Your task to perform on an android device: Empty the shopping cart on ebay.com. Search for "macbook pro 15 inch" on ebay.com, select the first entry, add it to the cart, then select checkout. Image 0: 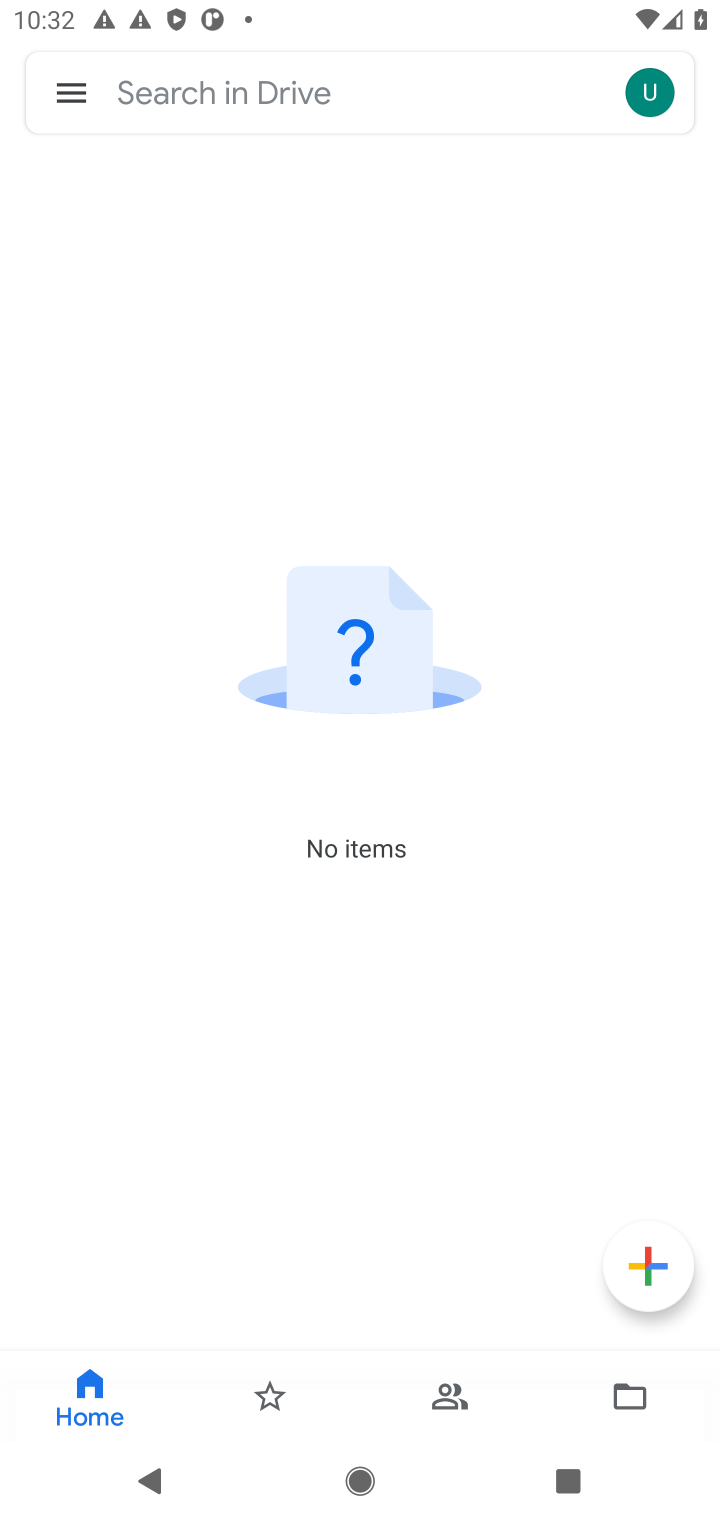
Step 0: press home button
Your task to perform on an android device: Empty the shopping cart on ebay.com. Search for "macbook pro 15 inch" on ebay.com, select the first entry, add it to the cart, then select checkout. Image 1: 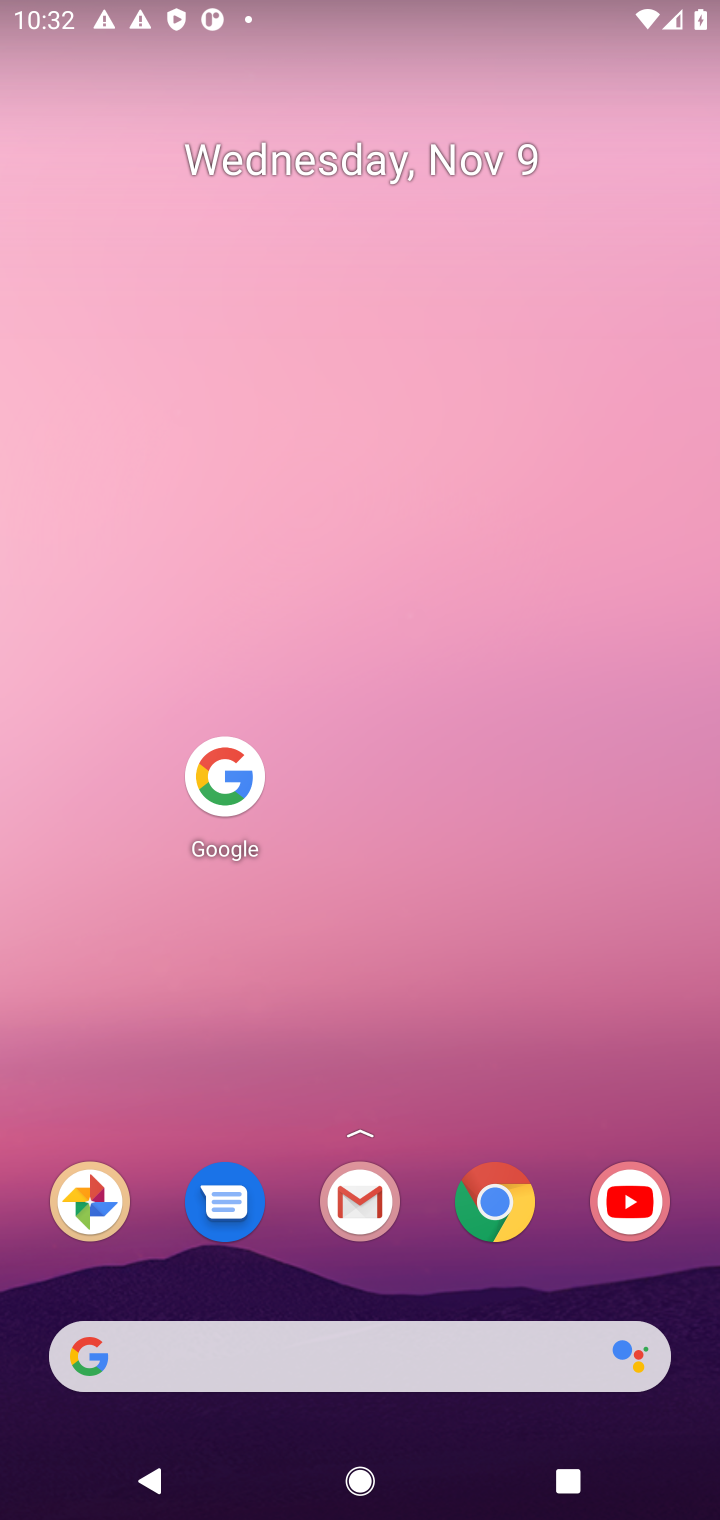
Step 1: click (236, 772)
Your task to perform on an android device: Empty the shopping cart on ebay.com. Search for "macbook pro 15 inch" on ebay.com, select the first entry, add it to the cart, then select checkout. Image 2: 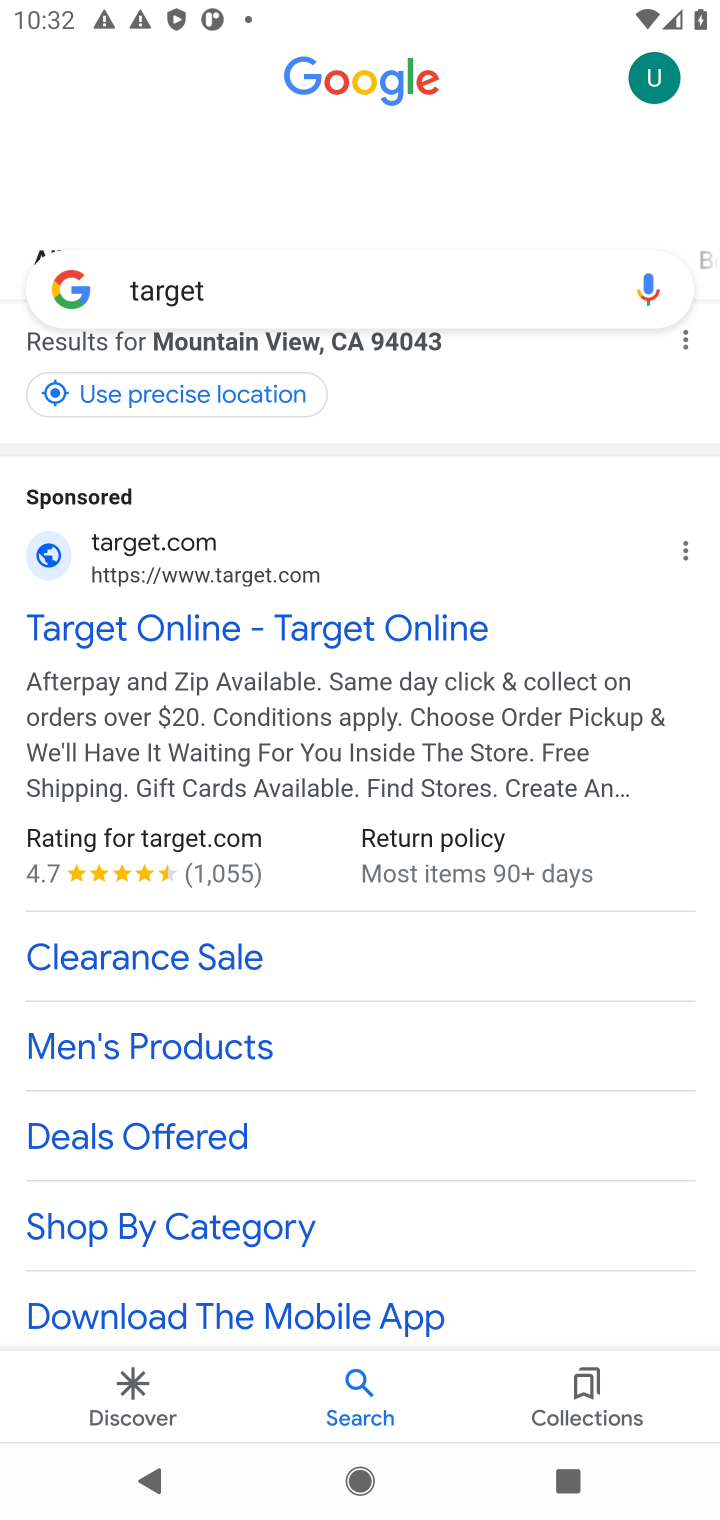
Step 2: click (272, 275)
Your task to perform on an android device: Empty the shopping cart on ebay.com. Search for "macbook pro 15 inch" on ebay.com, select the first entry, add it to the cart, then select checkout. Image 3: 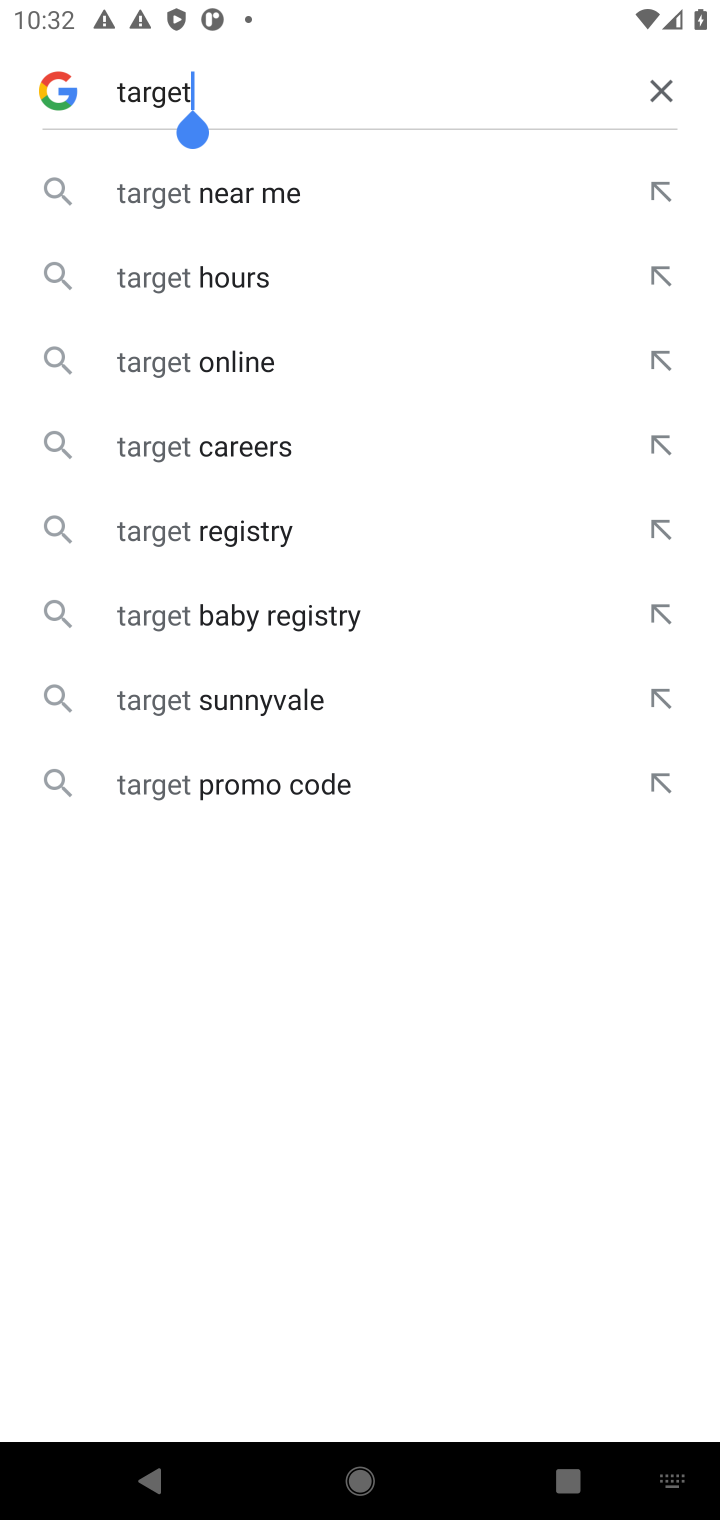
Step 3: click (659, 77)
Your task to perform on an android device: Empty the shopping cart on ebay.com. Search for "macbook pro 15 inch" on ebay.com, select the first entry, add it to the cart, then select checkout. Image 4: 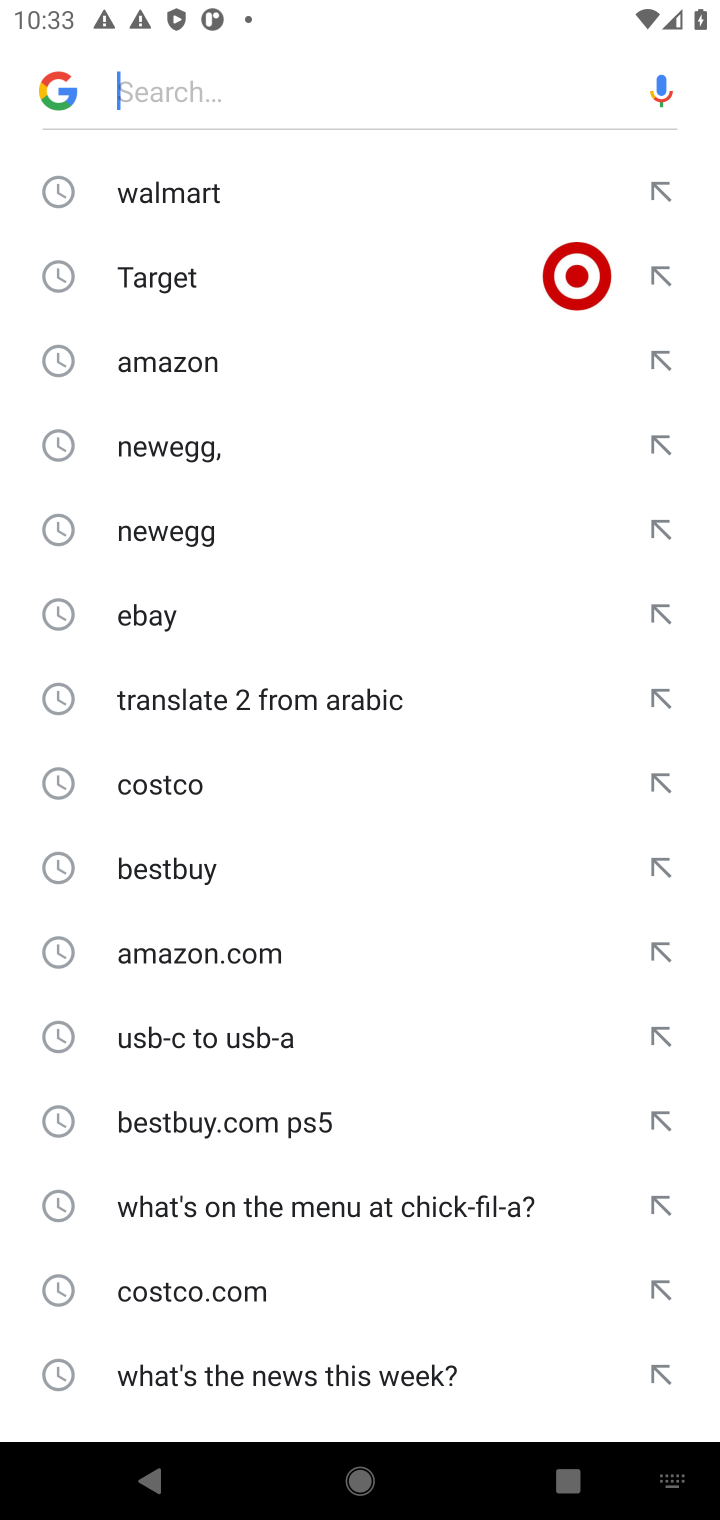
Step 4: click (149, 614)
Your task to perform on an android device: Empty the shopping cart on ebay.com. Search for "macbook pro 15 inch" on ebay.com, select the first entry, add it to the cart, then select checkout. Image 5: 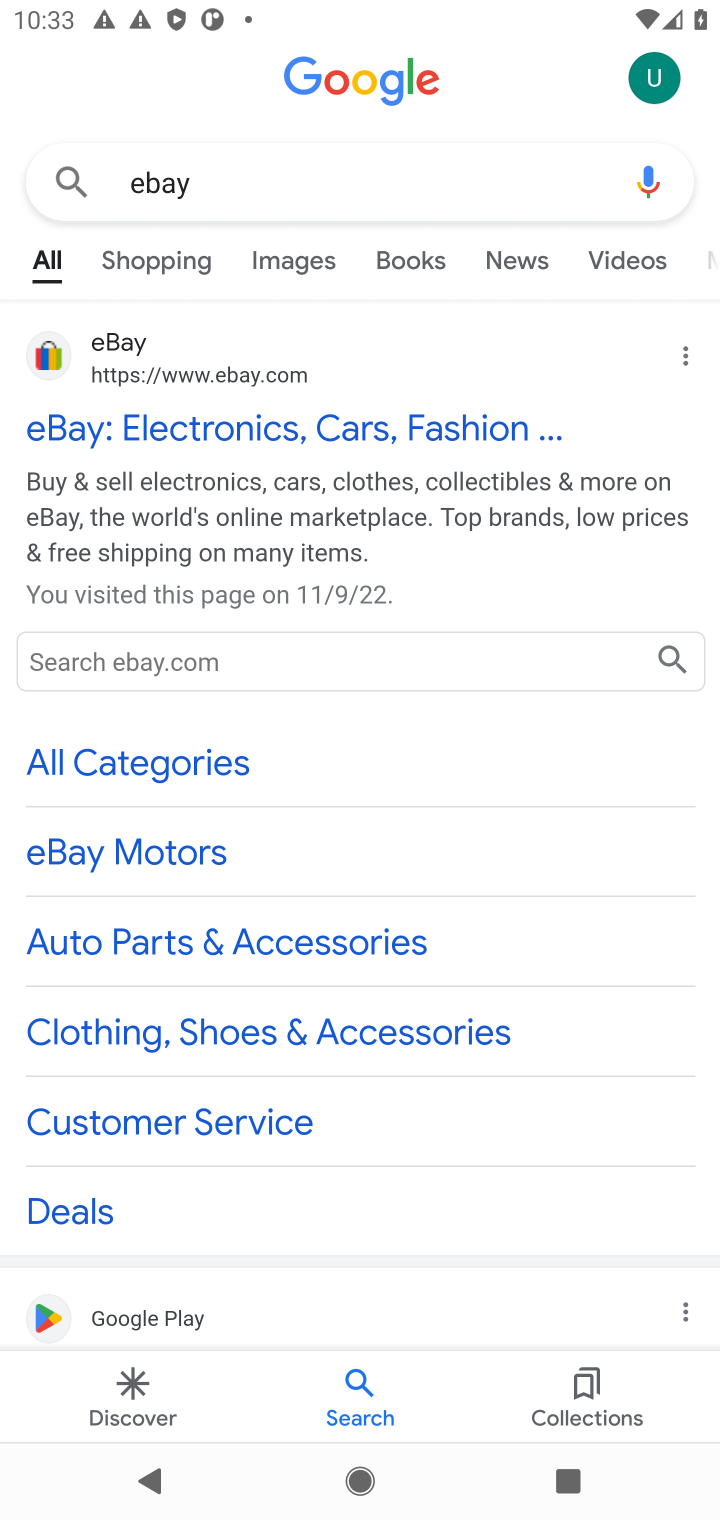
Step 5: click (258, 422)
Your task to perform on an android device: Empty the shopping cart on ebay.com. Search for "macbook pro 15 inch" on ebay.com, select the first entry, add it to the cart, then select checkout. Image 6: 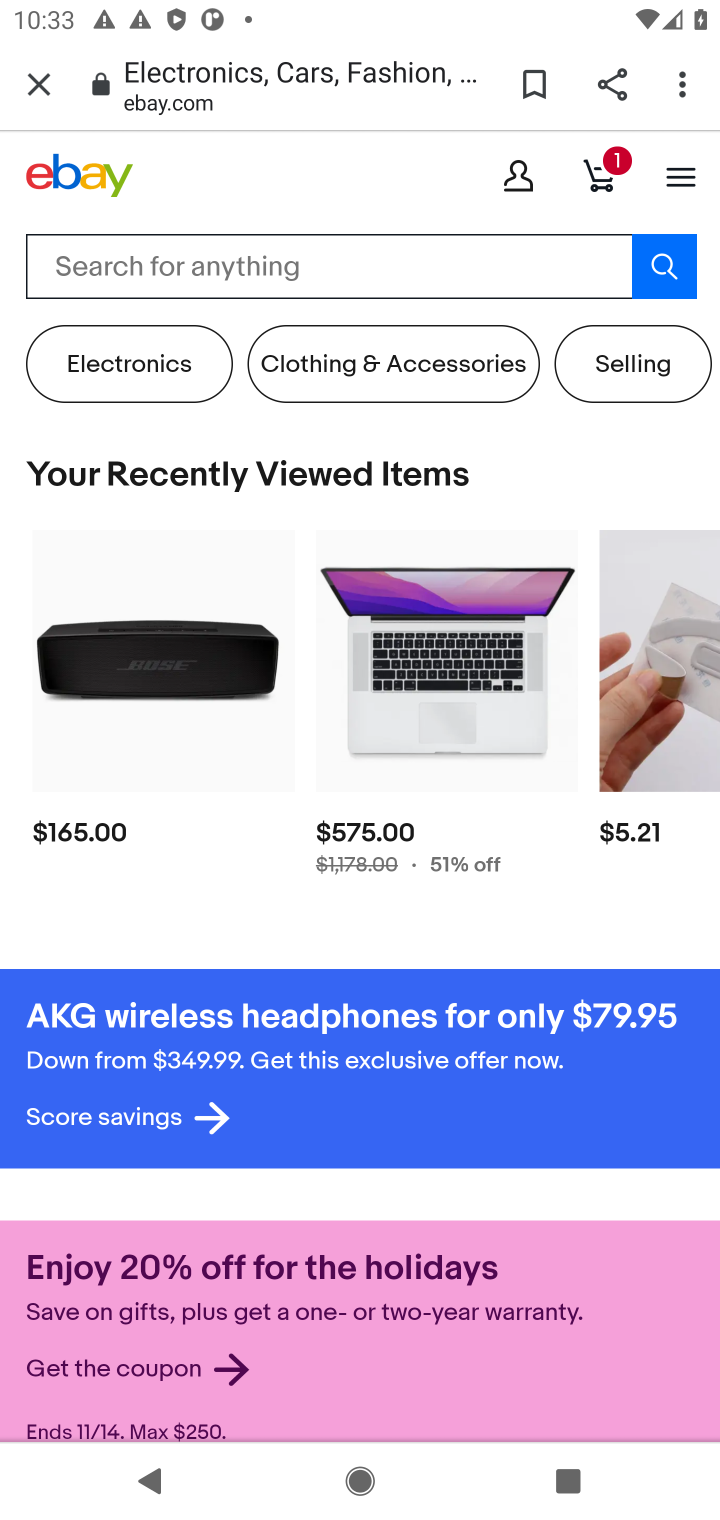
Step 6: click (310, 259)
Your task to perform on an android device: Empty the shopping cart on ebay.com. Search for "macbook pro 15 inch" on ebay.com, select the first entry, add it to the cart, then select checkout. Image 7: 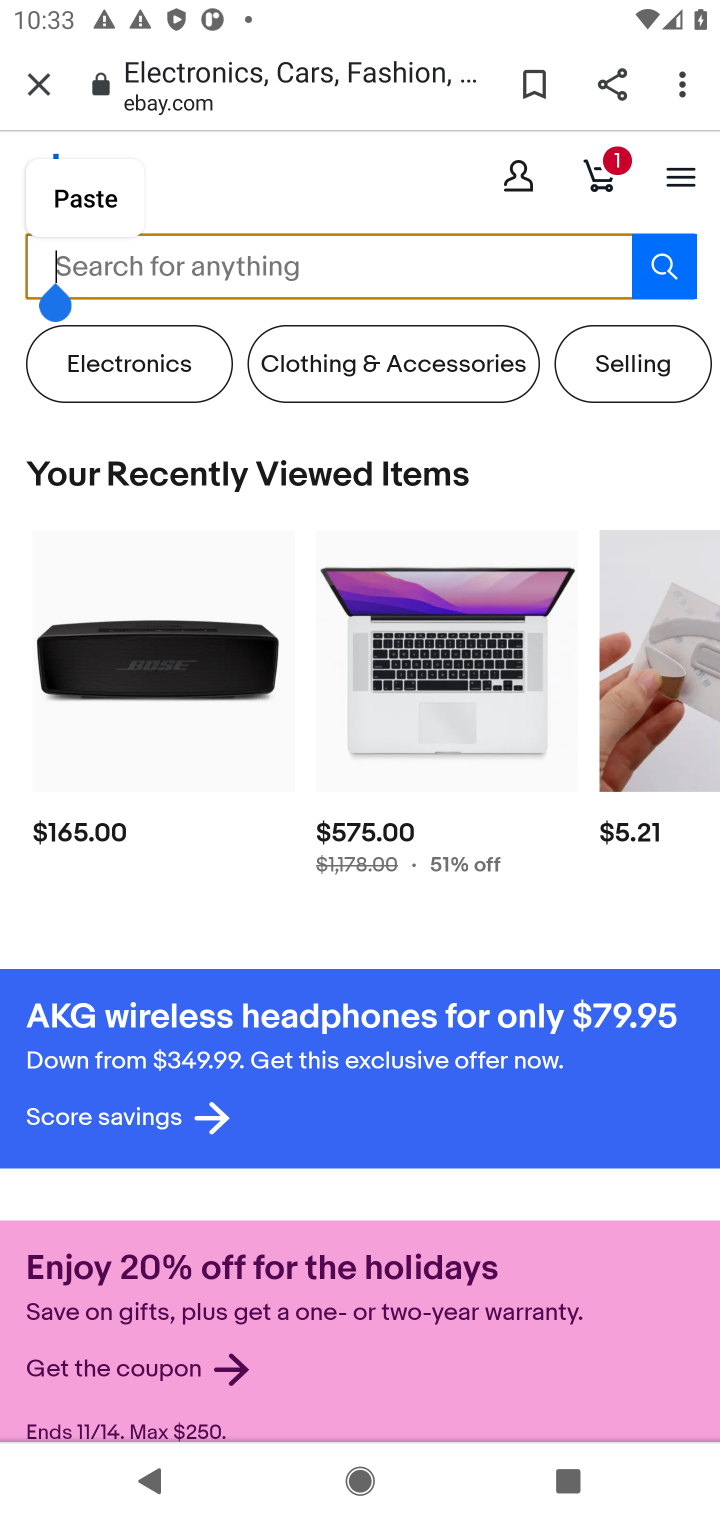
Step 7: type "macbook pro 15 inch"
Your task to perform on an android device: Empty the shopping cart on ebay.com. Search for "macbook pro 15 inch" on ebay.com, select the first entry, add it to the cart, then select checkout. Image 8: 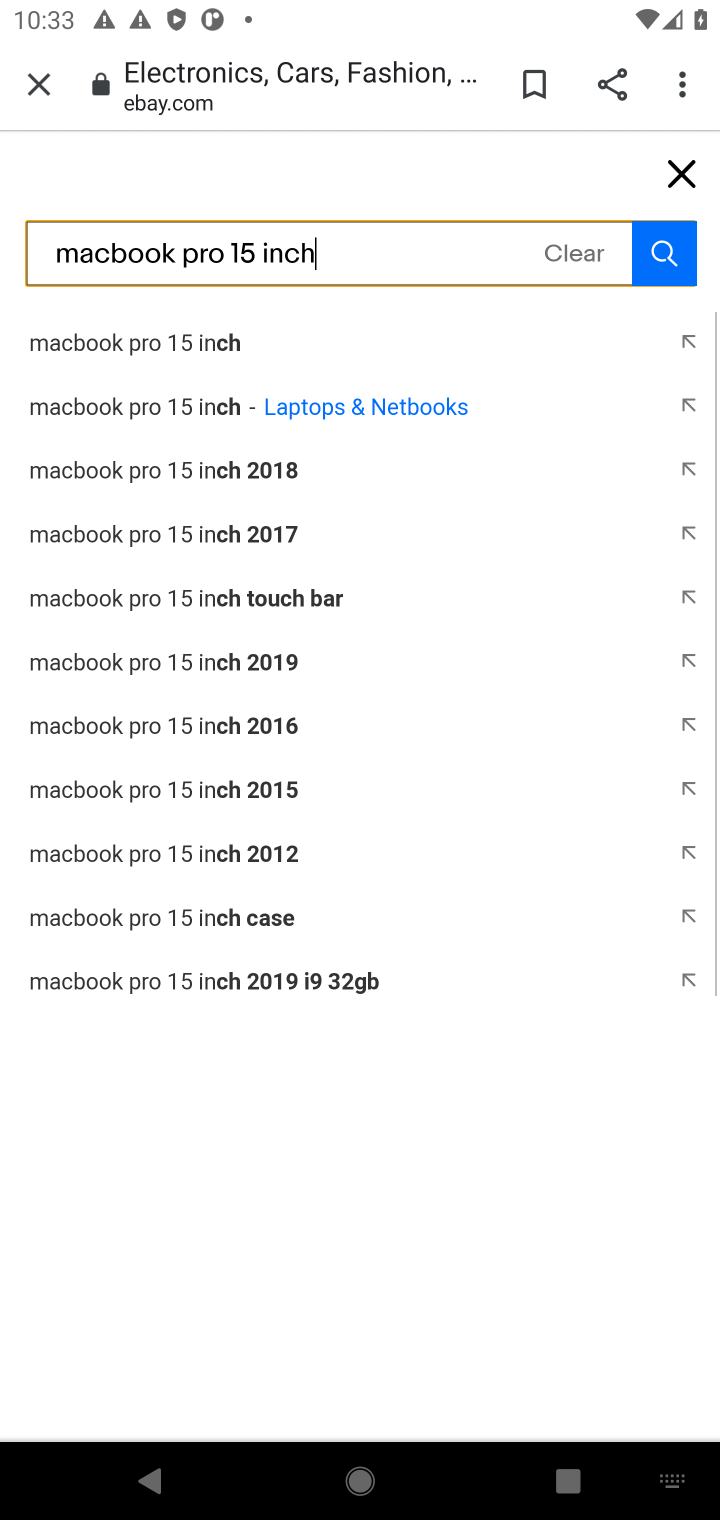
Step 8: press enter
Your task to perform on an android device: Empty the shopping cart on ebay.com. Search for "macbook pro 15 inch" on ebay.com, select the first entry, add it to the cart, then select checkout. Image 9: 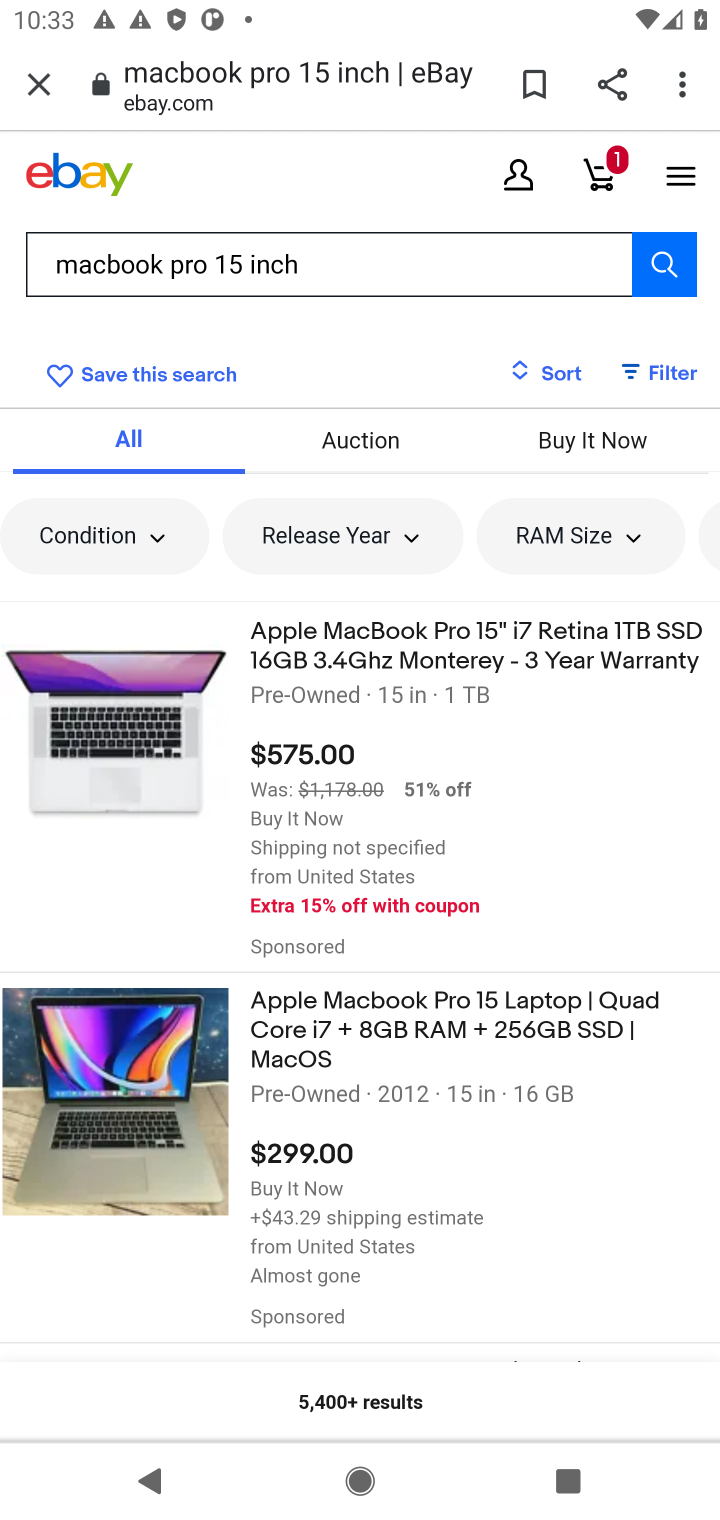
Step 9: click (440, 711)
Your task to perform on an android device: Empty the shopping cart on ebay.com. Search for "macbook pro 15 inch" on ebay.com, select the first entry, add it to the cart, then select checkout. Image 10: 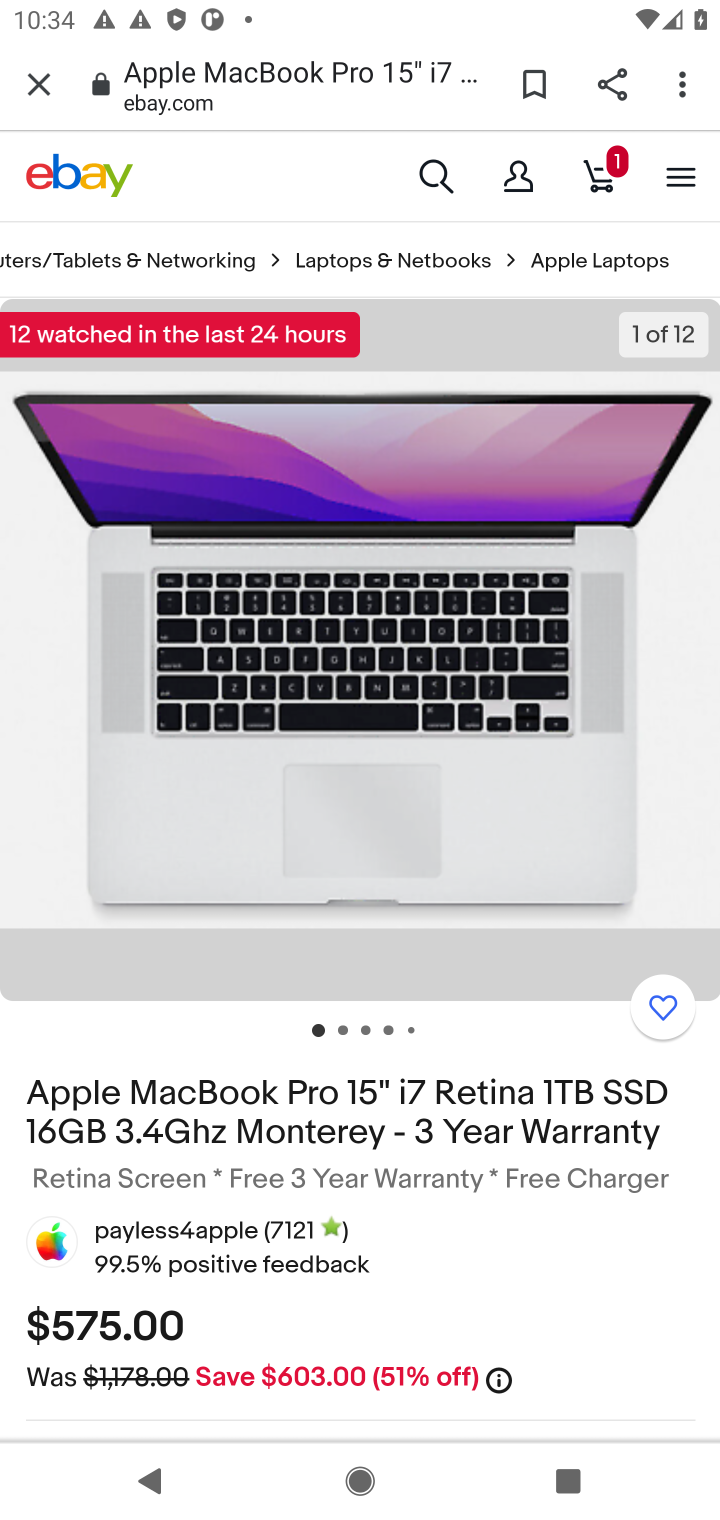
Step 10: drag from (476, 1257) to (457, 62)
Your task to perform on an android device: Empty the shopping cart on ebay.com. Search for "macbook pro 15 inch" on ebay.com, select the first entry, add it to the cart, then select checkout. Image 11: 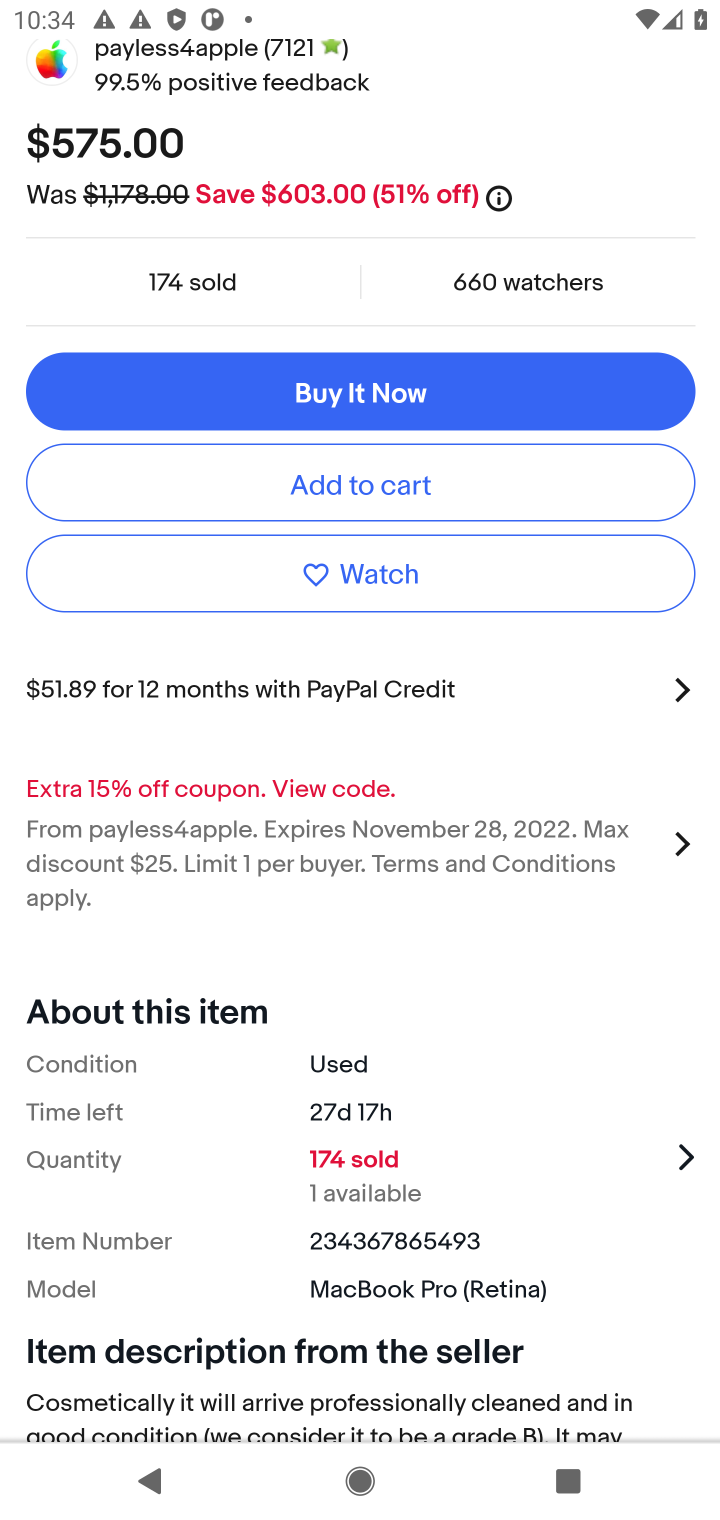
Step 11: click (348, 486)
Your task to perform on an android device: Empty the shopping cart on ebay.com. Search for "macbook pro 15 inch" on ebay.com, select the first entry, add it to the cart, then select checkout. Image 12: 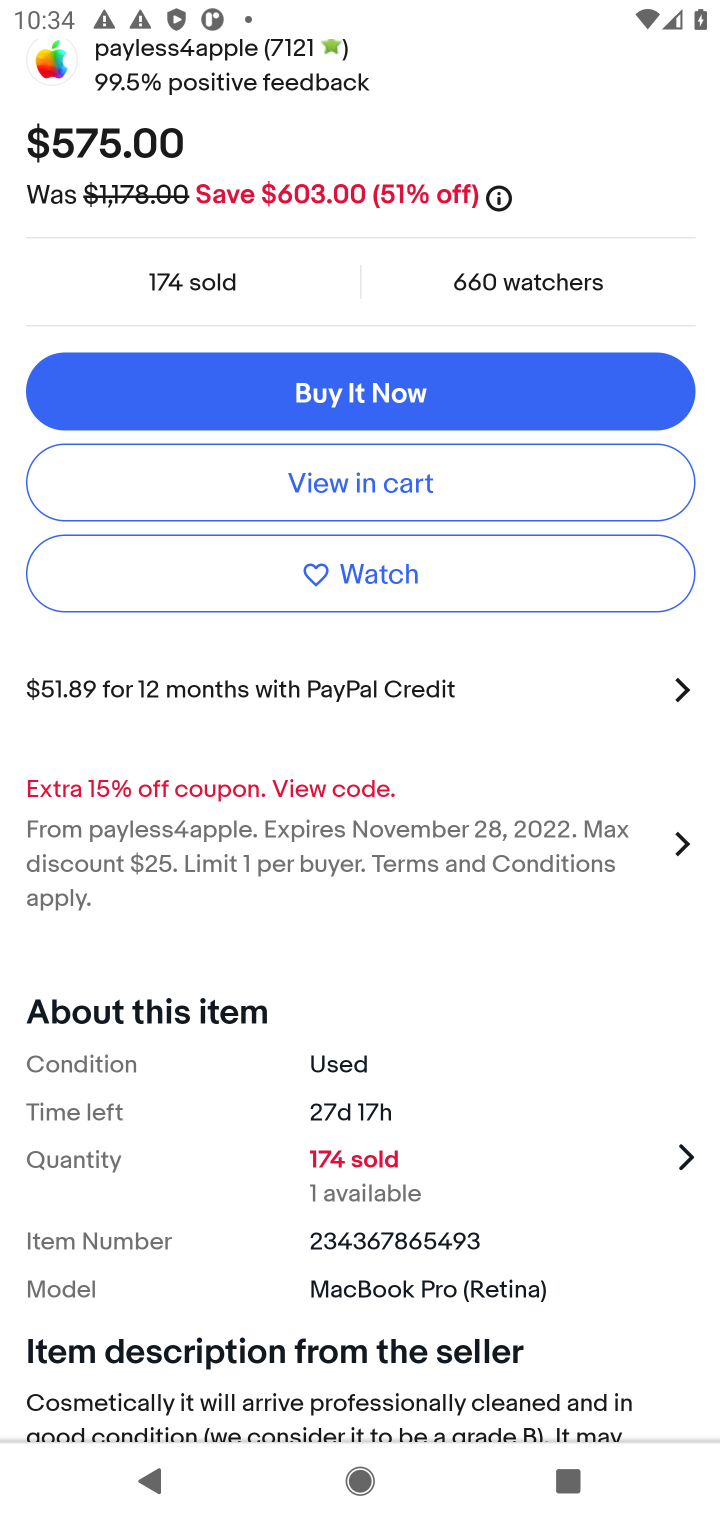
Step 12: click (357, 479)
Your task to perform on an android device: Empty the shopping cart on ebay.com. Search for "macbook pro 15 inch" on ebay.com, select the first entry, add it to the cart, then select checkout. Image 13: 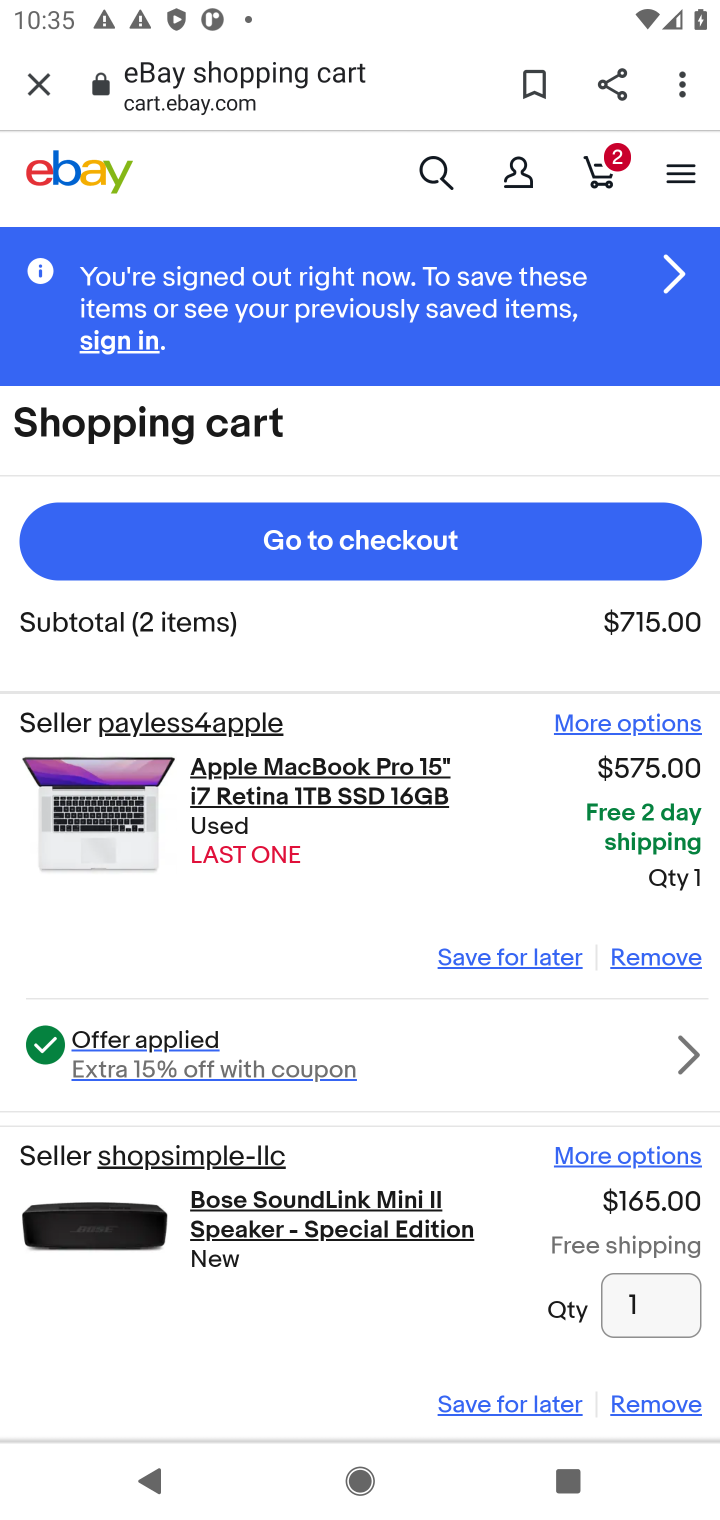
Step 13: click (656, 1406)
Your task to perform on an android device: Empty the shopping cart on ebay.com. Search for "macbook pro 15 inch" on ebay.com, select the first entry, add it to the cart, then select checkout. Image 14: 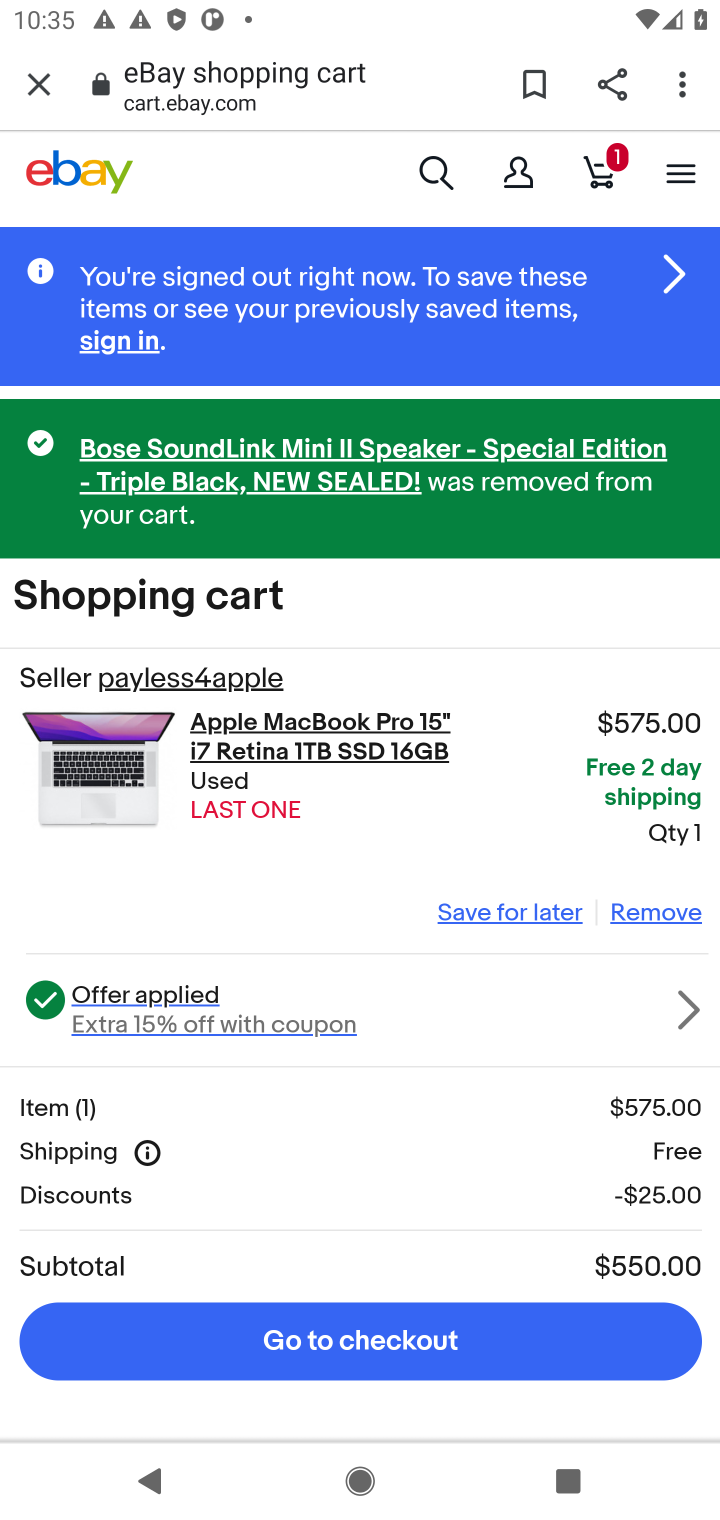
Step 14: click (395, 1340)
Your task to perform on an android device: Empty the shopping cart on ebay.com. Search for "macbook pro 15 inch" on ebay.com, select the first entry, add it to the cart, then select checkout. Image 15: 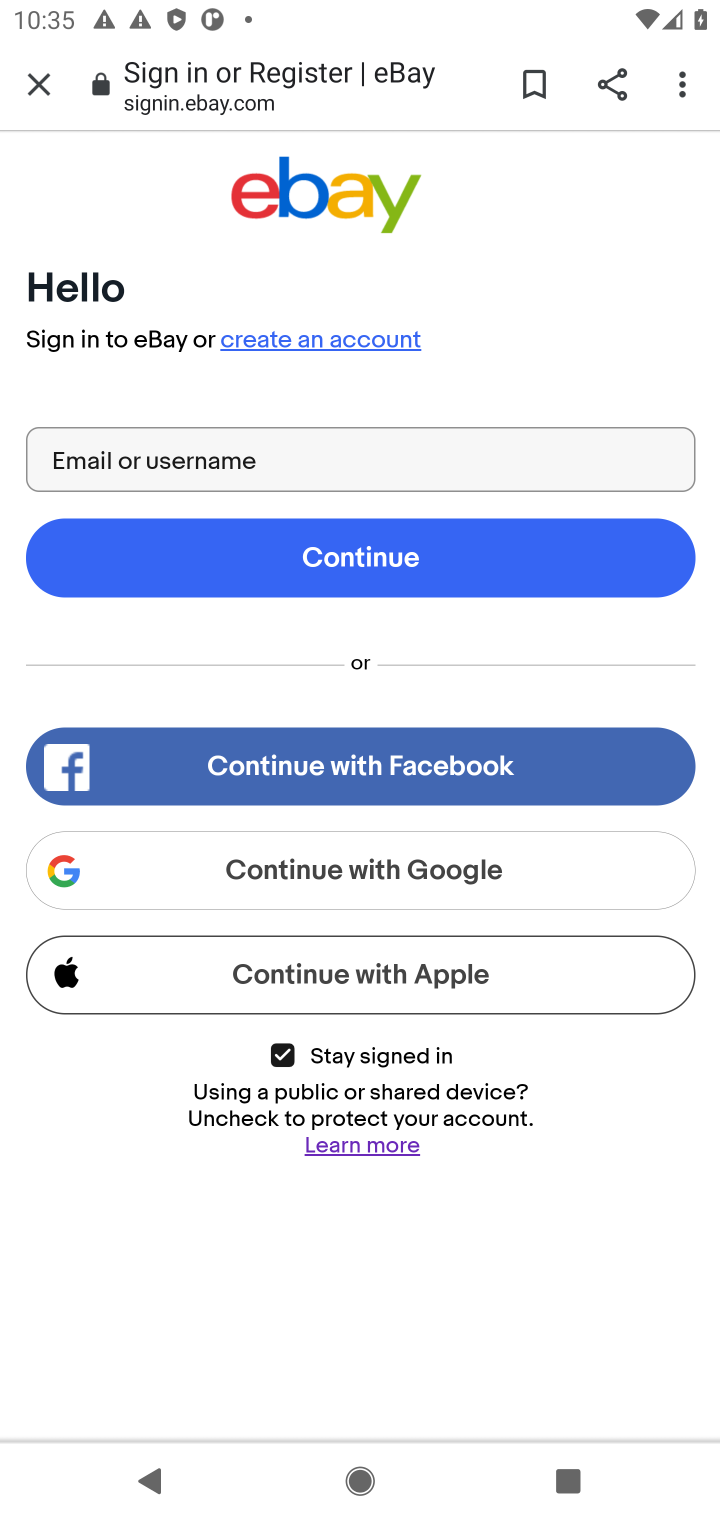
Step 15: task complete